Your task to perform on an android device: Go to CNN.com Image 0: 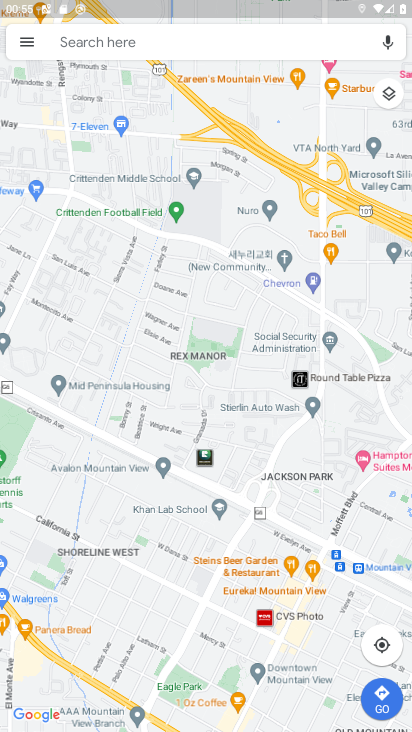
Step 0: press back button
Your task to perform on an android device: Go to CNN.com Image 1: 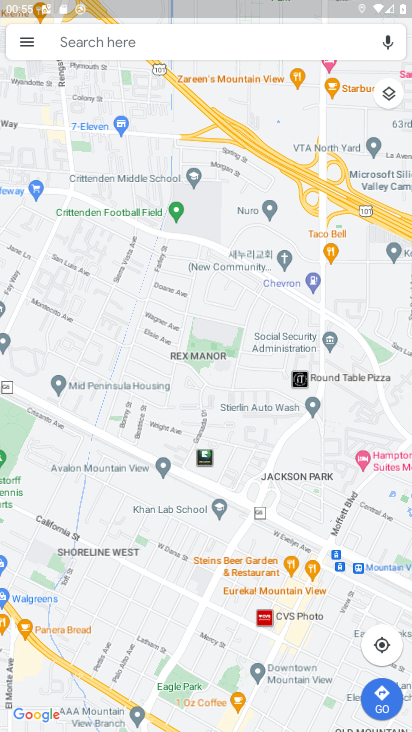
Step 1: press back button
Your task to perform on an android device: Go to CNN.com Image 2: 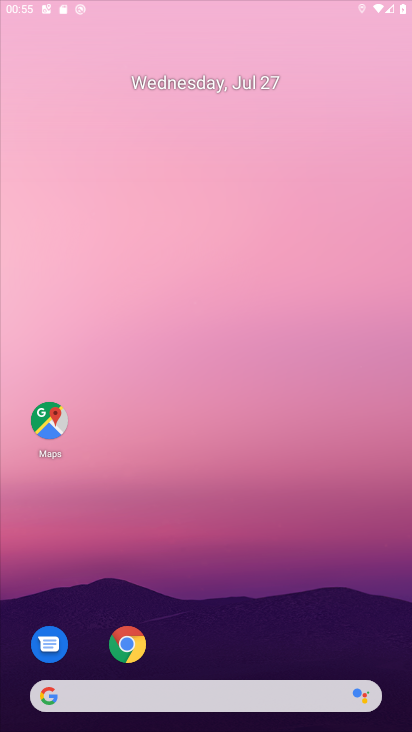
Step 2: press back button
Your task to perform on an android device: Go to CNN.com Image 3: 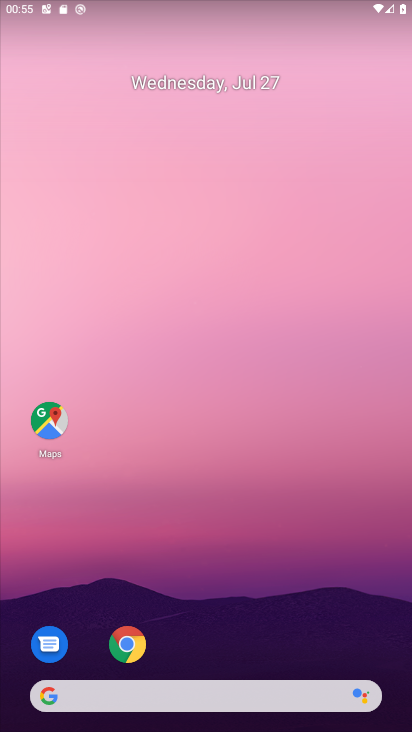
Step 3: drag from (235, 666) to (205, 157)
Your task to perform on an android device: Go to CNN.com Image 4: 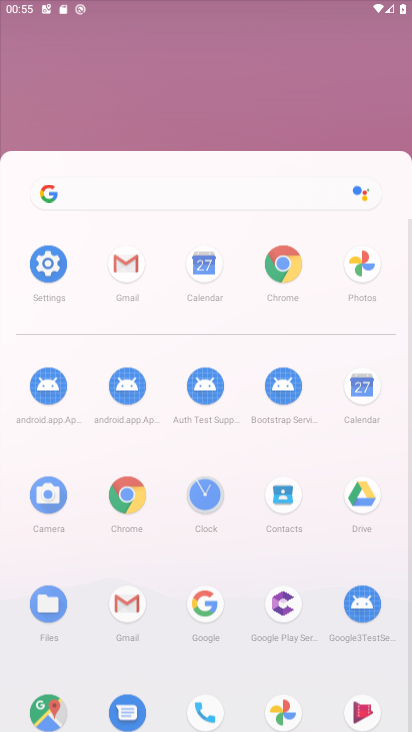
Step 4: drag from (294, 552) to (291, 155)
Your task to perform on an android device: Go to CNN.com Image 5: 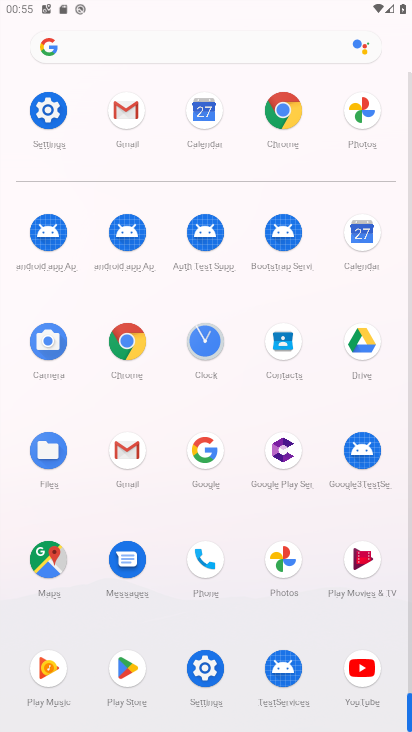
Step 5: click (283, 107)
Your task to perform on an android device: Go to CNN.com Image 6: 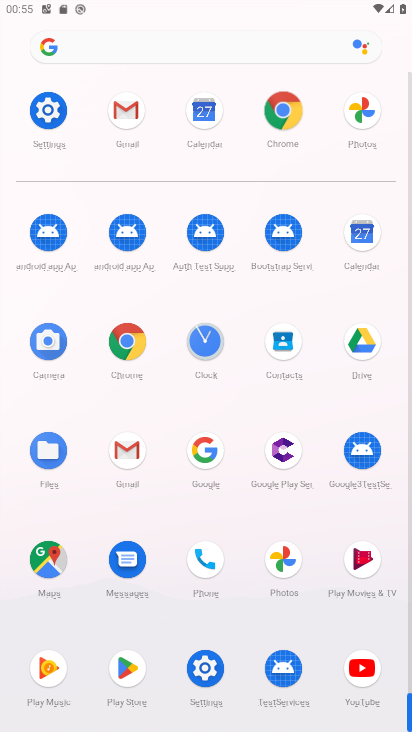
Step 6: click (287, 109)
Your task to perform on an android device: Go to CNN.com Image 7: 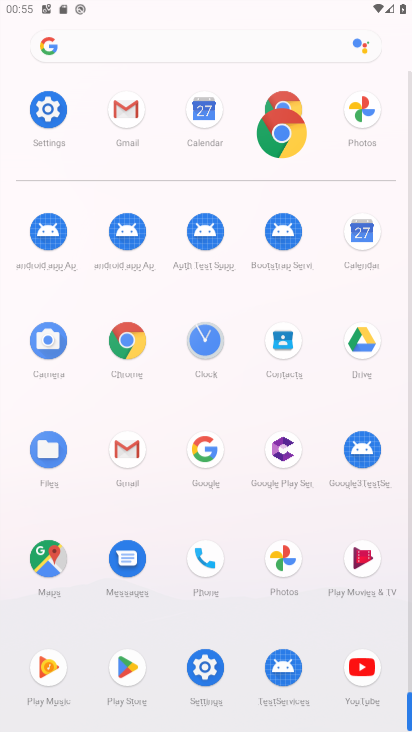
Step 7: click (302, 118)
Your task to perform on an android device: Go to CNN.com Image 8: 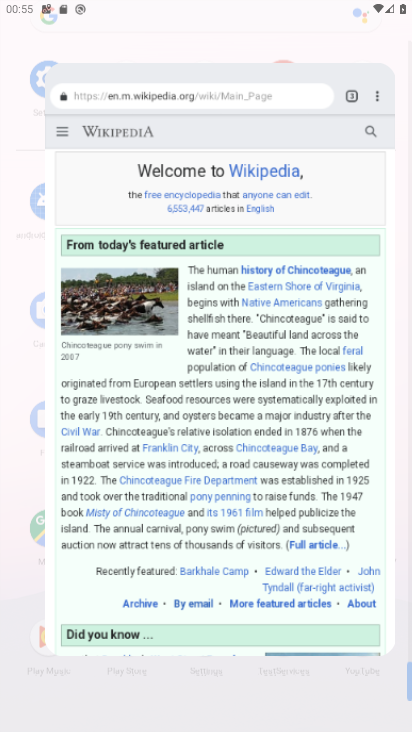
Step 8: click (309, 118)
Your task to perform on an android device: Go to CNN.com Image 9: 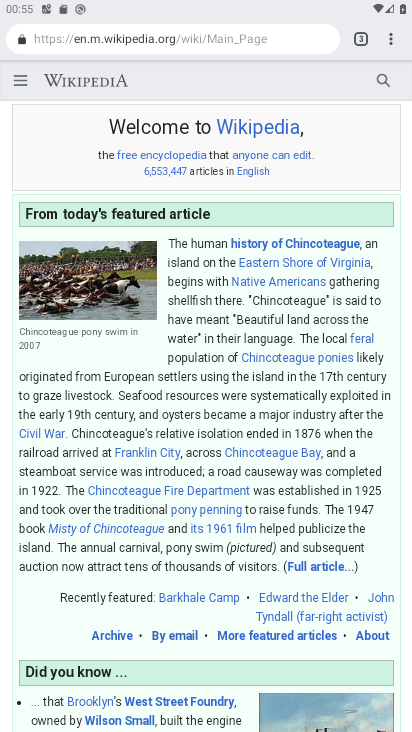
Step 9: drag from (382, 43) to (262, 80)
Your task to perform on an android device: Go to CNN.com Image 10: 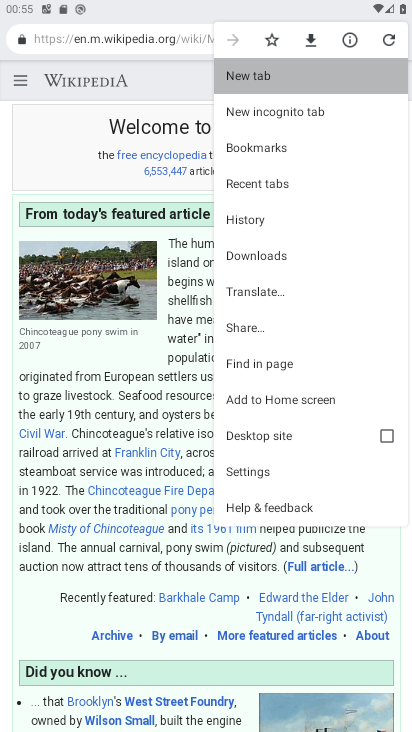
Step 10: click (270, 77)
Your task to perform on an android device: Go to CNN.com Image 11: 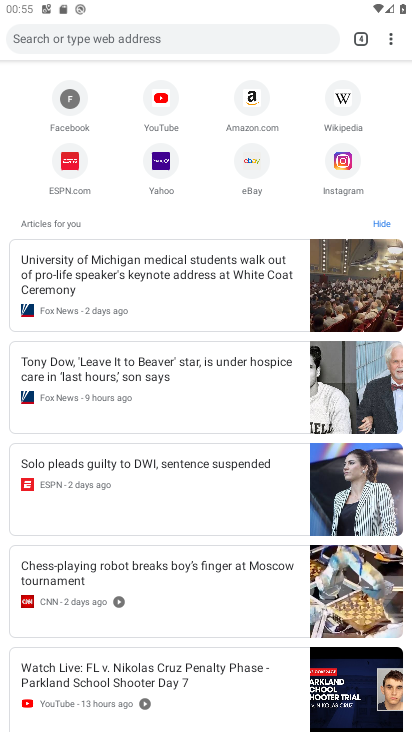
Step 11: click (65, 46)
Your task to perform on an android device: Go to CNN.com Image 12: 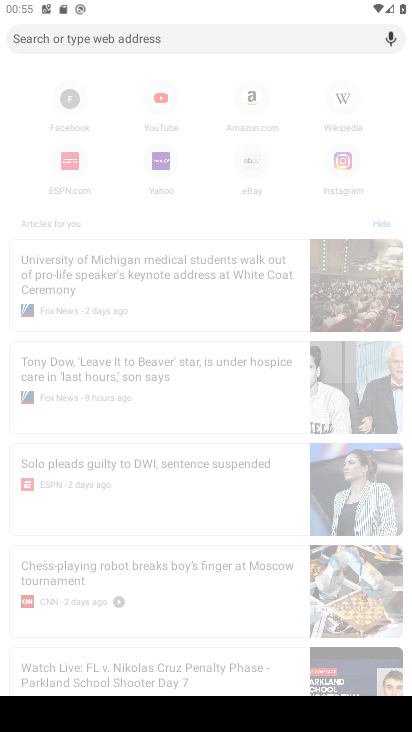
Step 12: type "CNN.com"
Your task to perform on an android device: Go to CNN.com Image 13: 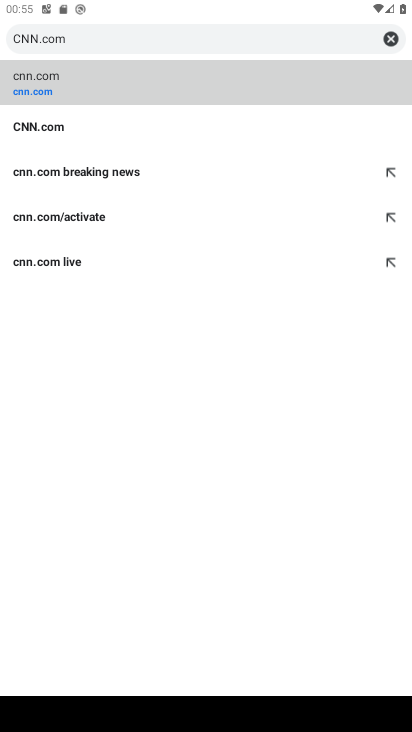
Step 13: click (22, 75)
Your task to perform on an android device: Go to CNN.com Image 14: 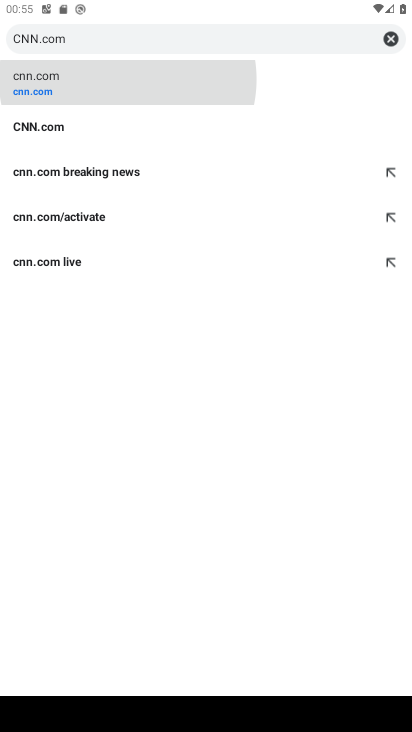
Step 14: click (50, 85)
Your task to perform on an android device: Go to CNN.com Image 15: 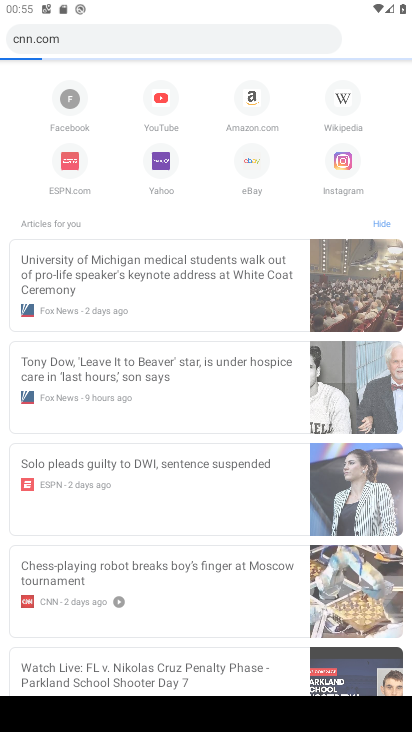
Step 15: click (59, 92)
Your task to perform on an android device: Go to CNN.com Image 16: 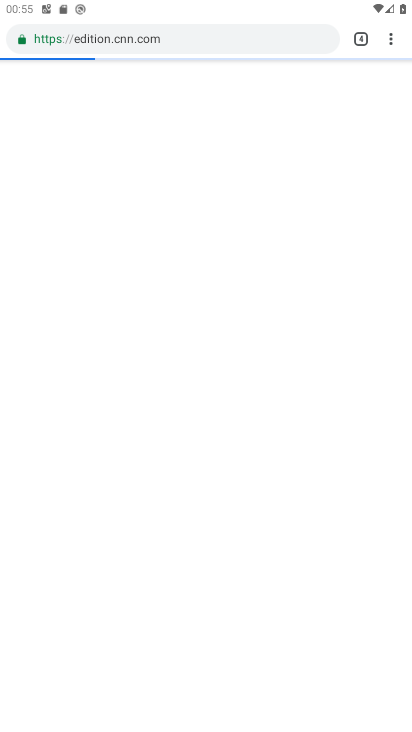
Step 16: task complete